Your task to perform on an android device: Open display settings Image 0: 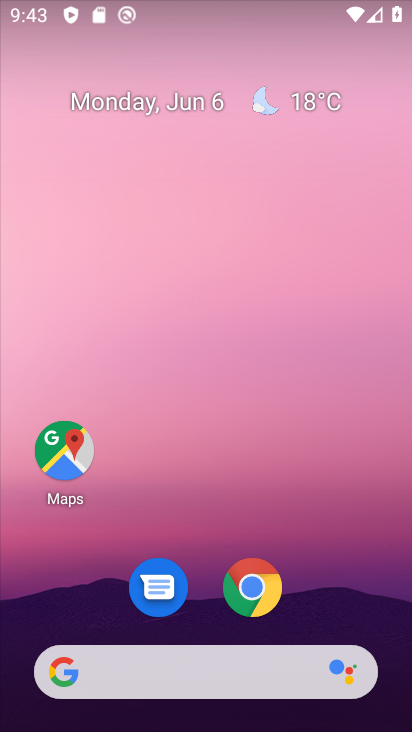
Step 0: drag from (225, 381) to (216, 243)
Your task to perform on an android device: Open display settings Image 1: 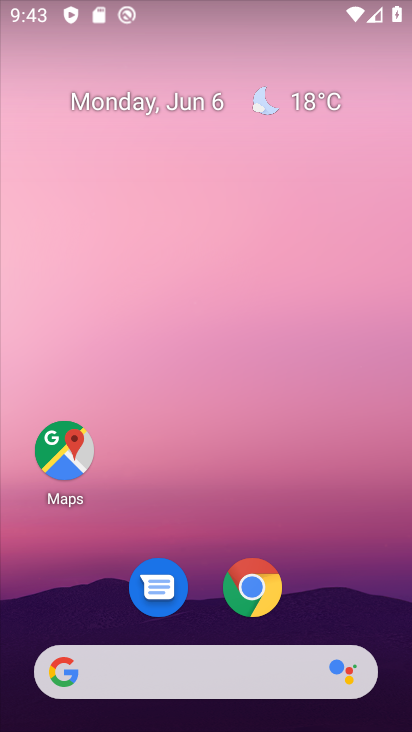
Step 1: drag from (190, 590) to (181, 57)
Your task to perform on an android device: Open display settings Image 2: 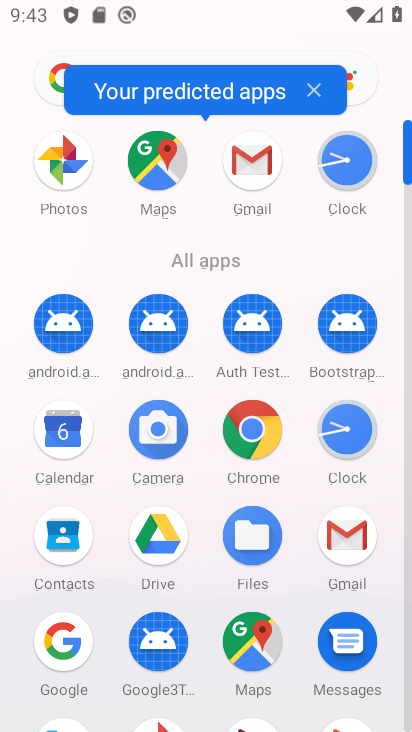
Step 2: drag from (199, 661) to (193, 260)
Your task to perform on an android device: Open display settings Image 3: 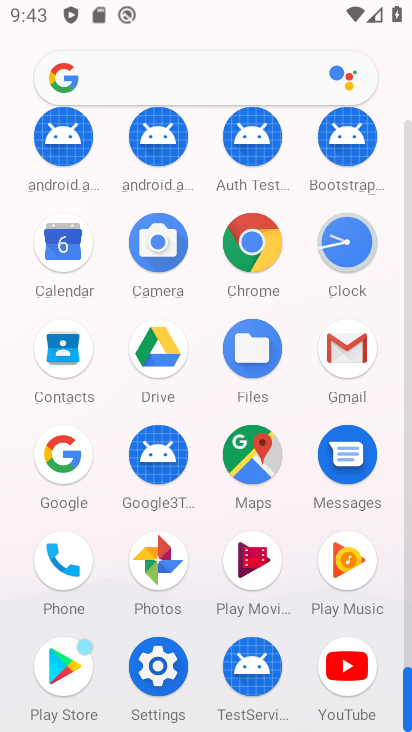
Step 3: click (148, 657)
Your task to perform on an android device: Open display settings Image 4: 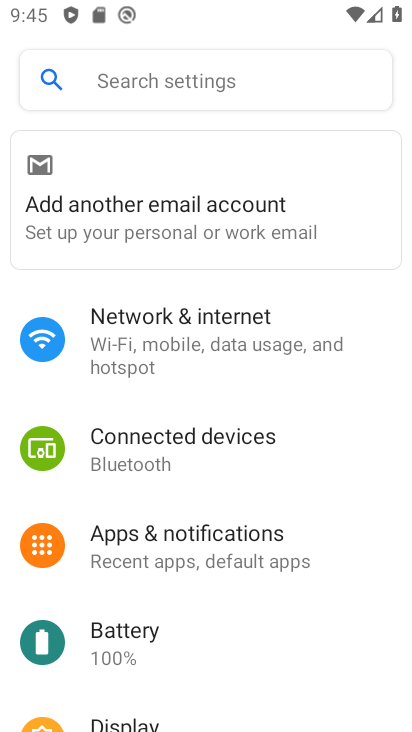
Step 4: drag from (141, 646) to (136, 223)
Your task to perform on an android device: Open display settings Image 5: 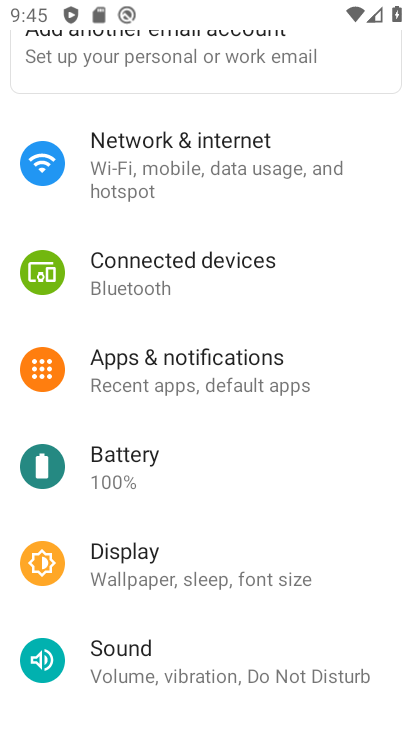
Step 5: click (134, 555)
Your task to perform on an android device: Open display settings Image 6: 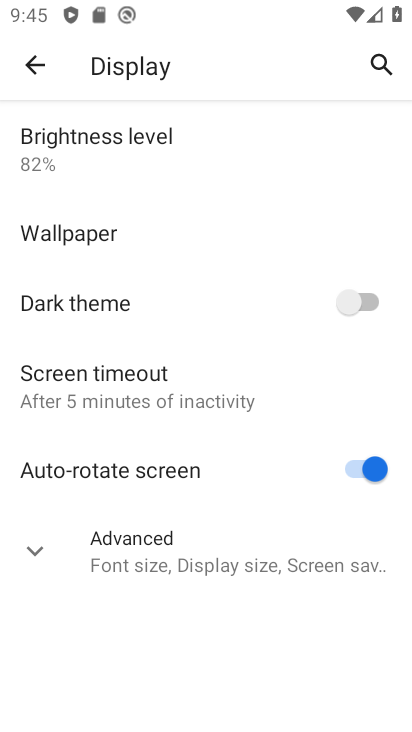
Step 6: click (261, 571)
Your task to perform on an android device: Open display settings Image 7: 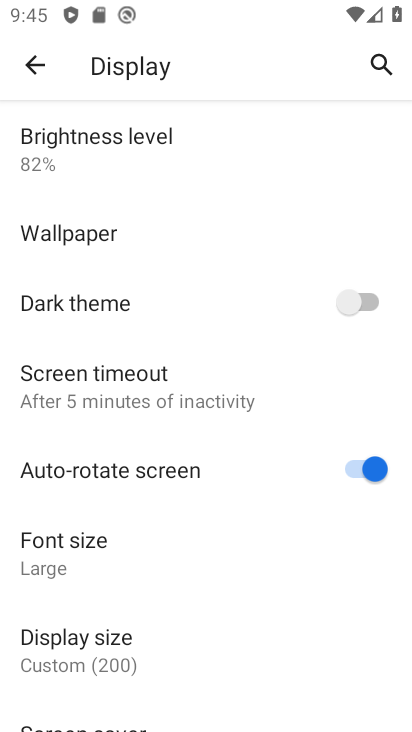
Step 7: task complete